Your task to perform on an android device: toggle priority inbox in the gmail app Image 0: 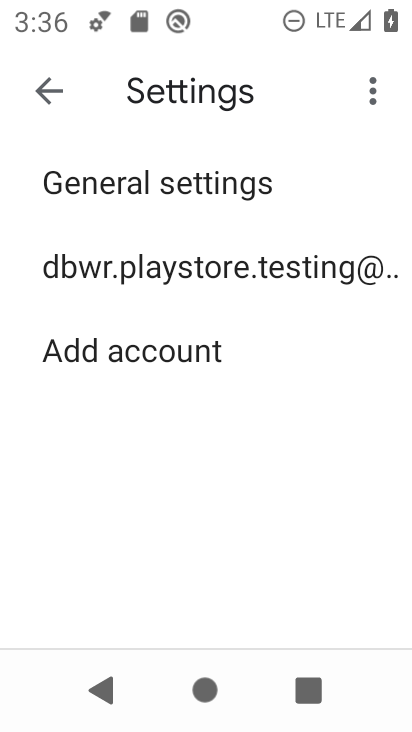
Step 0: press home button
Your task to perform on an android device: toggle priority inbox in the gmail app Image 1: 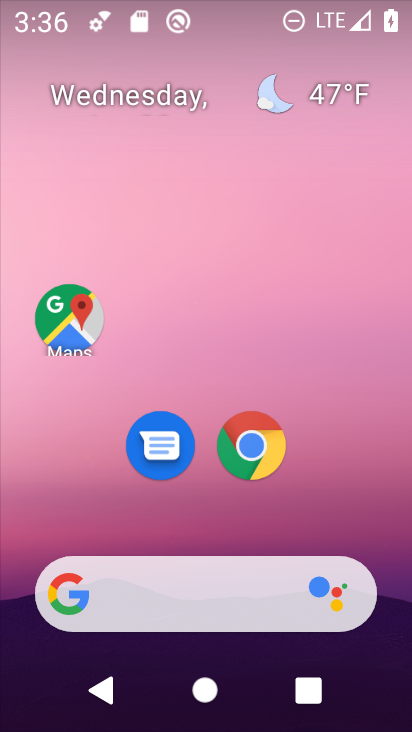
Step 1: drag from (205, 505) to (268, 45)
Your task to perform on an android device: toggle priority inbox in the gmail app Image 2: 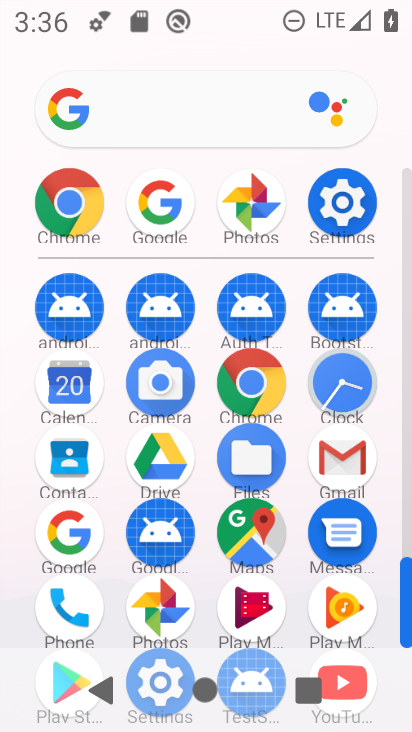
Step 2: click (342, 458)
Your task to perform on an android device: toggle priority inbox in the gmail app Image 3: 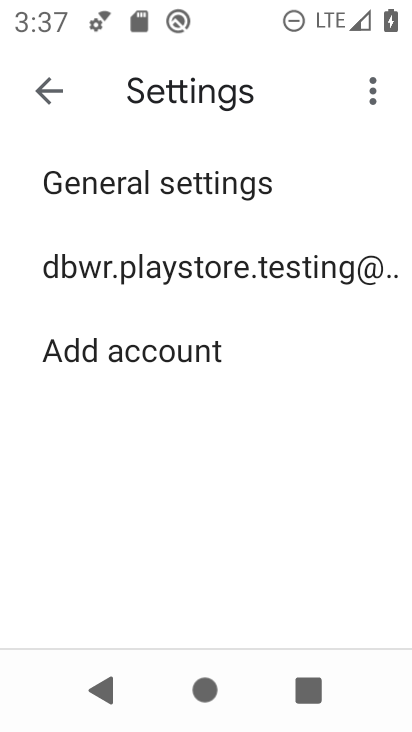
Step 3: click (250, 267)
Your task to perform on an android device: toggle priority inbox in the gmail app Image 4: 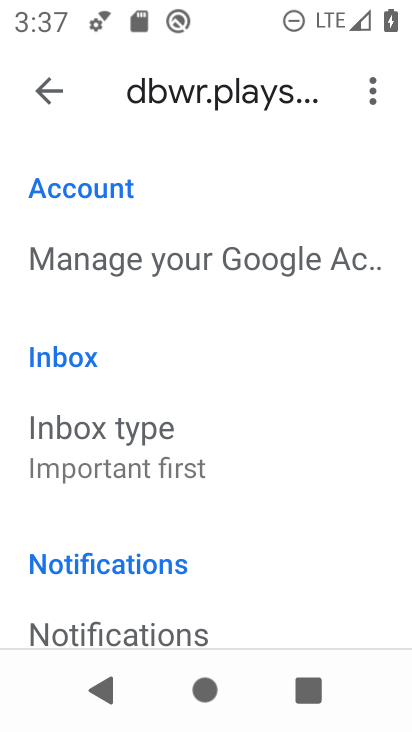
Step 4: click (154, 462)
Your task to perform on an android device: toggle priority inbox in the gmail app Image 5: 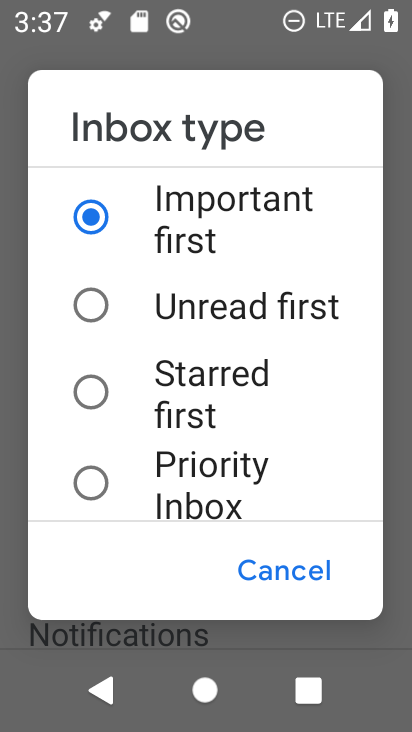
Step 5: click (104, 478)
Your task to perform on an android device: toggle priority inbox in the gmail app Image 6: 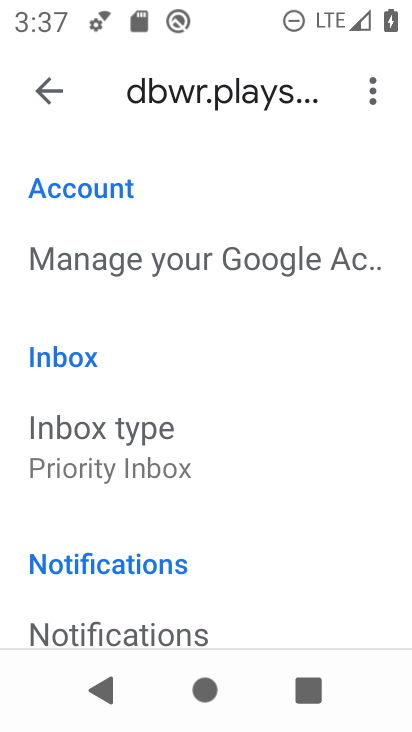
Step 6: task complete